Your task to perform on an android device: turn off airplane mode Image 0: 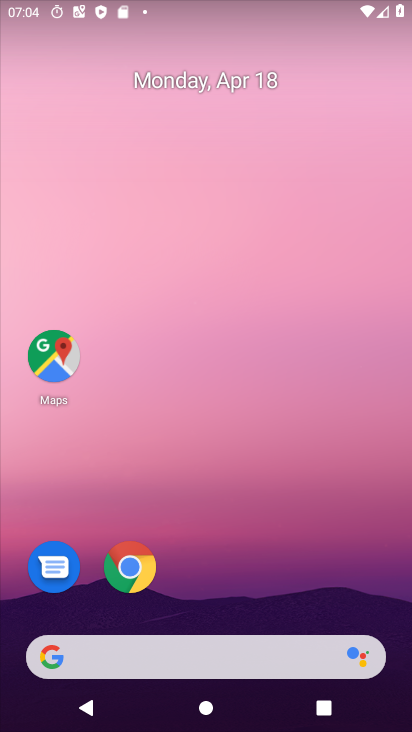
Step 0: drag from (99, 58) to (154, 271)
Your task to perform on an android device: turn off airplane mode Image 1: 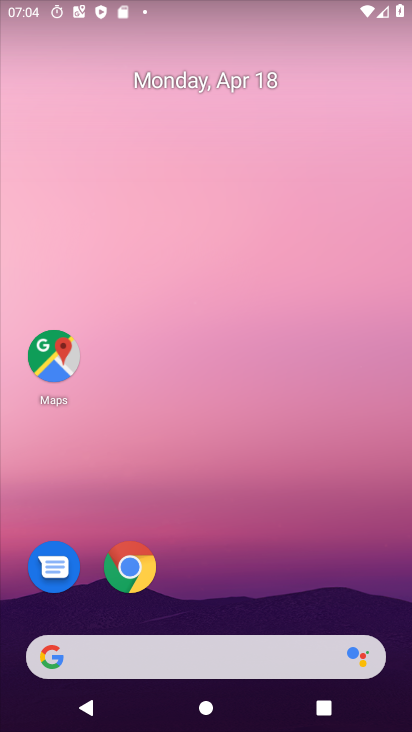
Step 1: task complete